Your task to perform on an android device: What's the weather going to be this weekend? Image 0: 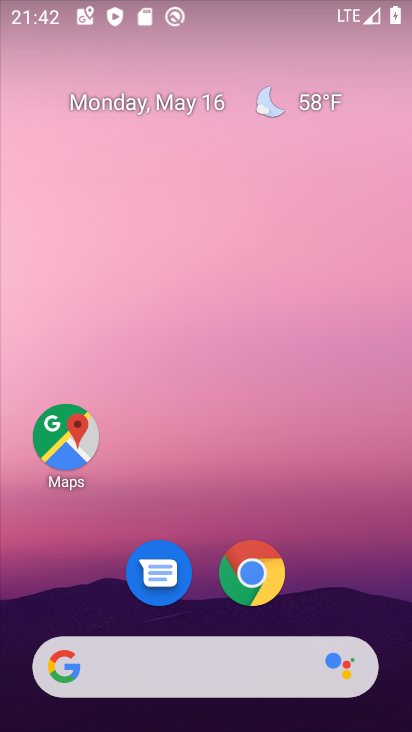
Step 0: drag from (212, 725) to (208, 149)
Your task to perform on an android device: What's the weather going to be this weekend? Image 1: 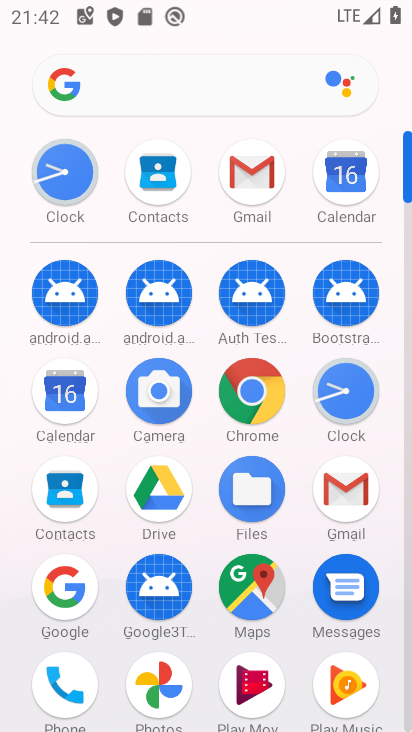
Step 1: click (67, 582)
Your task to perform on an android device: What's the weather going to be this weekend? Image 2: 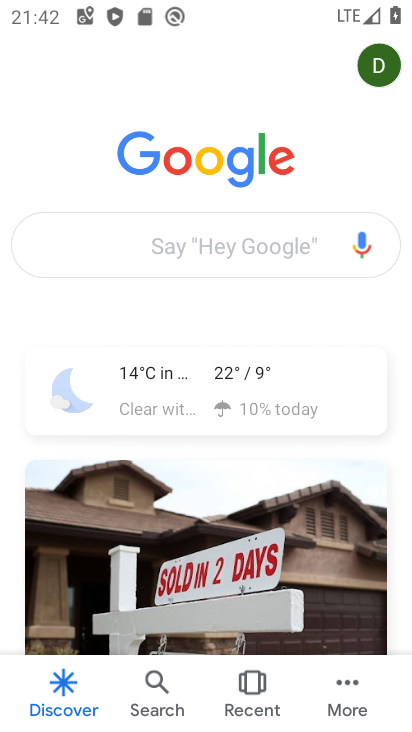
Step 2: click (116, 378)
Your task to perform on an android device: What's the weather going to be this weekend? Image 3: 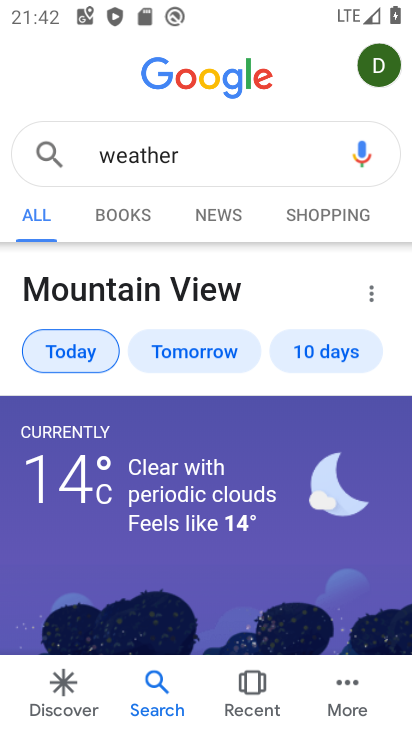
Step 3: click (306, 346)
Your task to perform on an android device: What's the weather going to be this weekend? Image 4: 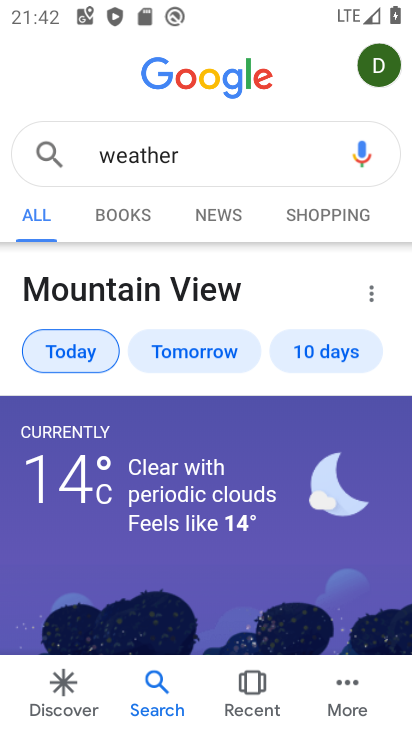
Step 4: click (306, 347)
Your task to perform on an android device: What's the weather going to be this weekend? Image 5: 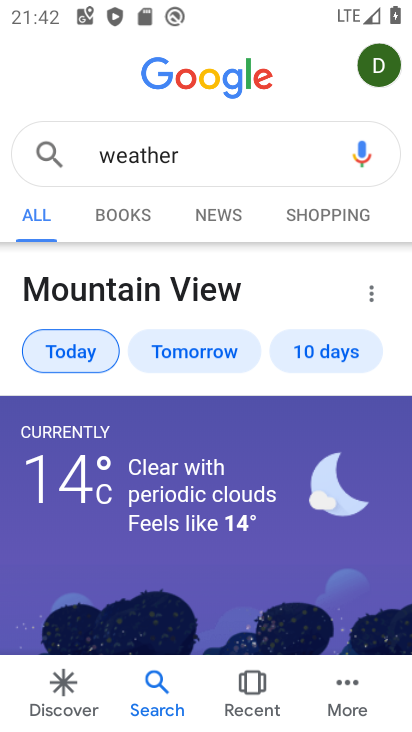
Step 5: click (306, 347)
Your task to perform on an android device: What's the weather going to be this weekend? Image 6: 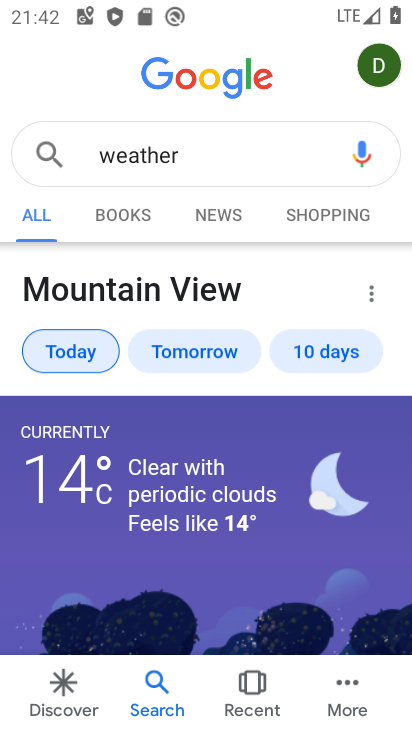
Step 6: click (184, 350)
Your task to perform on an android device: What's the weather going to be this weekend? Image 7: 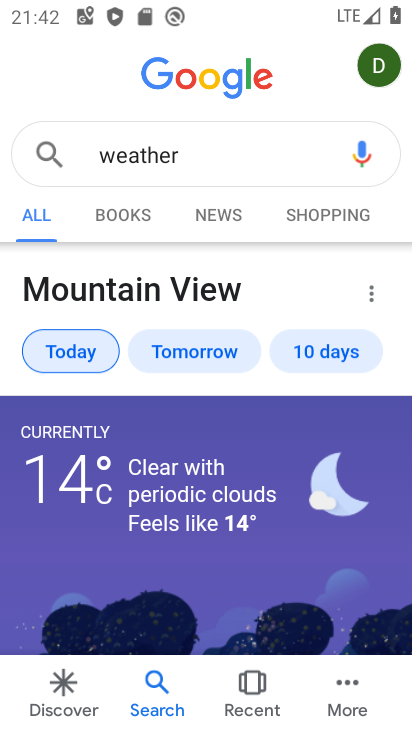
Step 7: click (151, 380)
Your task to perform on an android device: What's the weather going to be this weekend? Image 8: 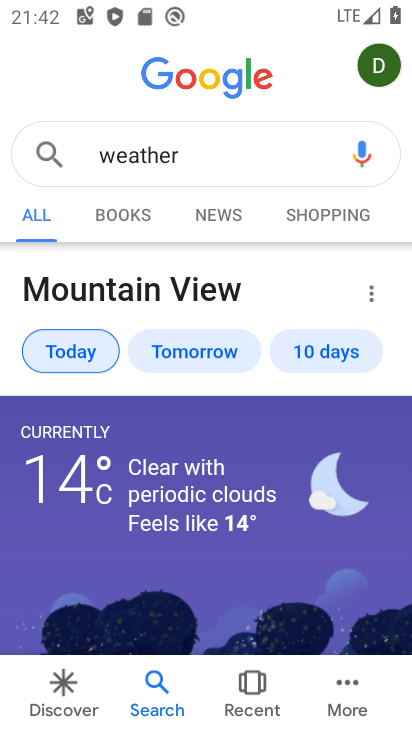
Step 8: click (57, 344)
Your task to perform on an android device: What's the weather going to be this weekend? Image 9: 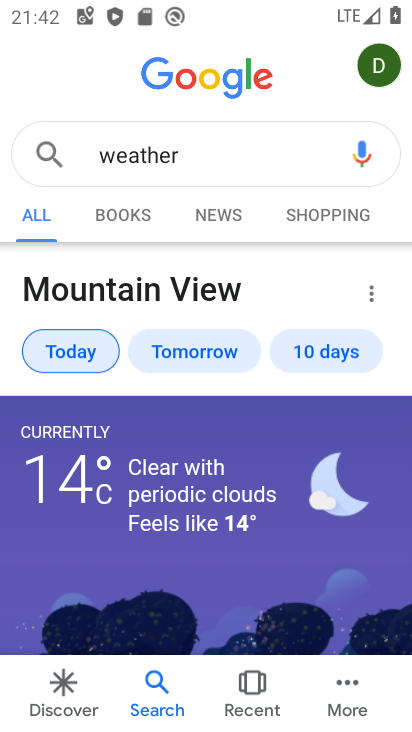
Step 9: click (57, 344)
Your task to perform on an android device: What's the weather going to be this weekend? Image 10: 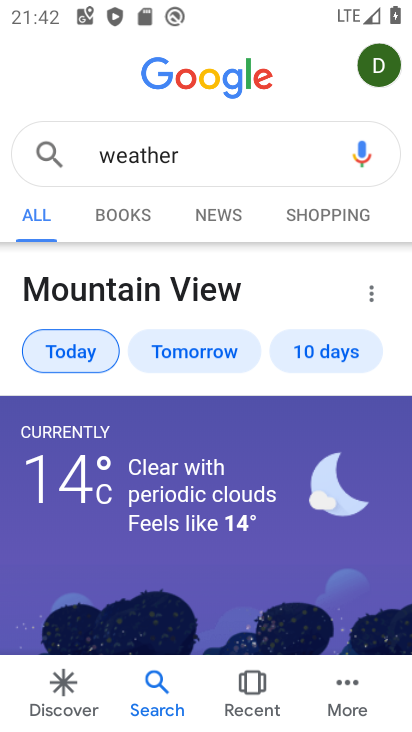
Step 10: click (57, 344)
Your task to perform on an android device: What's the weather going to be this weekend? Image 11: 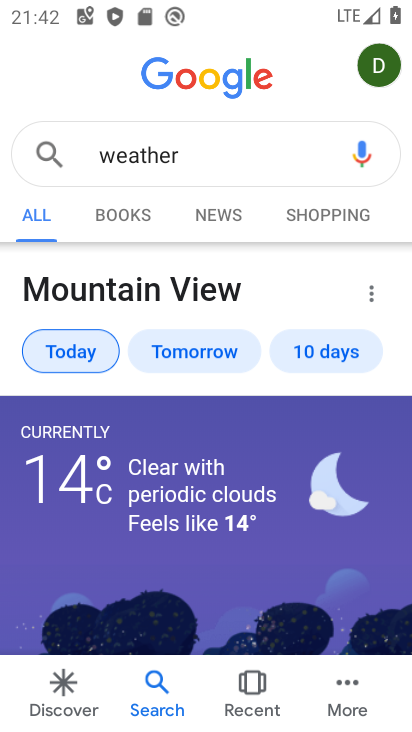
Step 11: click (57, 345)
Your task to perform on an android device: What's the weather going to be this weekend? Image 12: 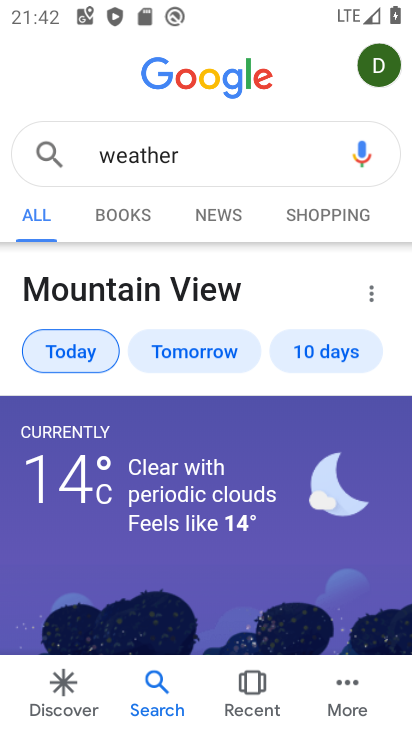
Step 12: press home button
Your task to perform on an android device: What's the weather going to be this weekend? Image 13: 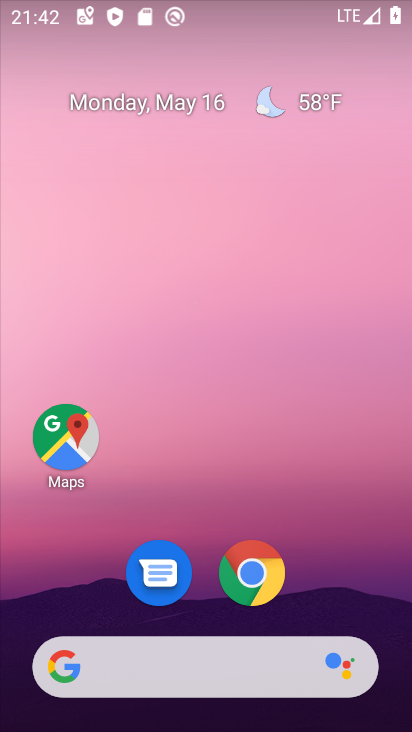
Step 13: click (262, 96)
Your task to perform on an android device: What's the weather going to be this weekend? Image 14: 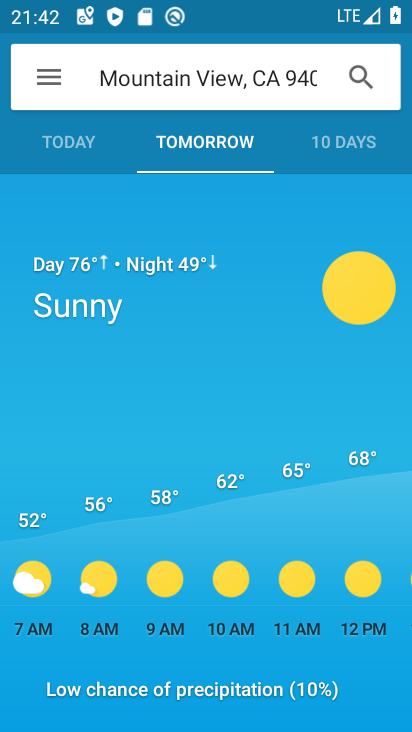
Step 14: click (354, 136)
Your task to perform on an android device: What's the weather going to be this weekend? Image 15: 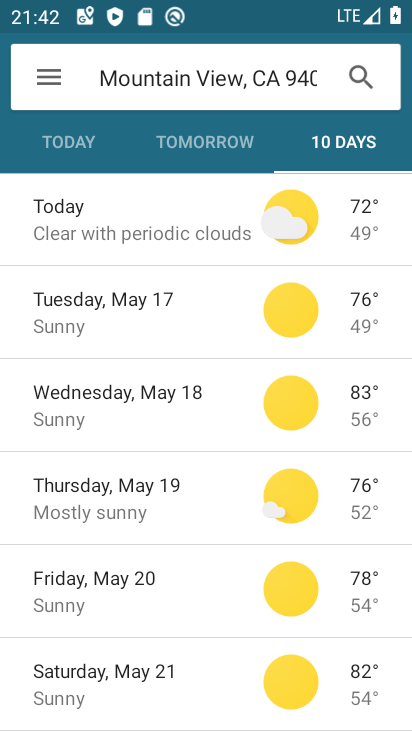
Step 15: drag from (73, 647) to (76, 314)
Your task to perform on an android device: What's the weather going to be this weekend? Image 16: 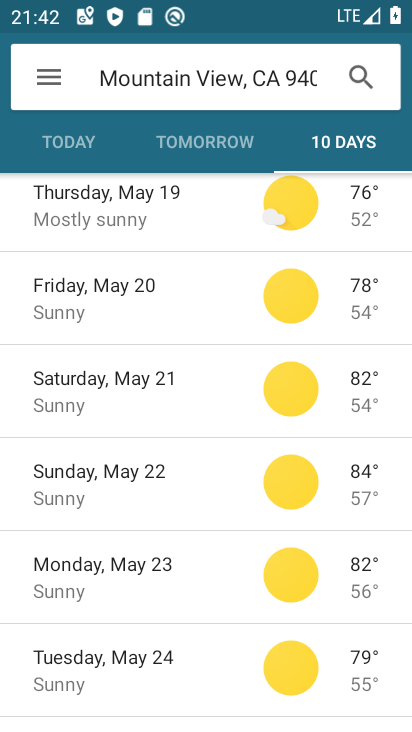
Step 16: click (64, 380)
Your task to perform on an android device: What's the weather going to be this weekend? Image 17: 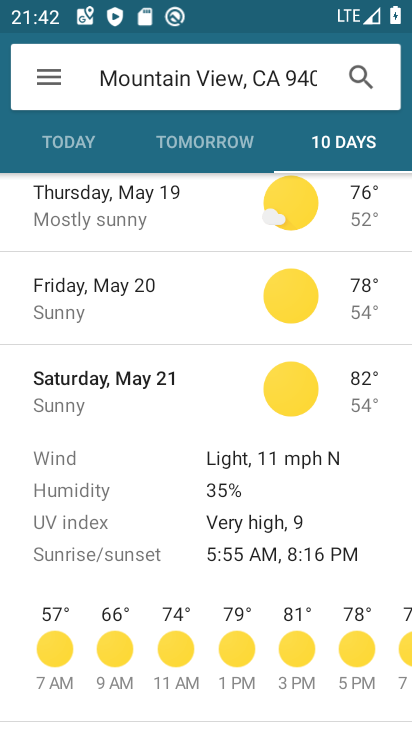
Step 17: task complete